Your task to perform on an android device: Go to Amazon Image 0: 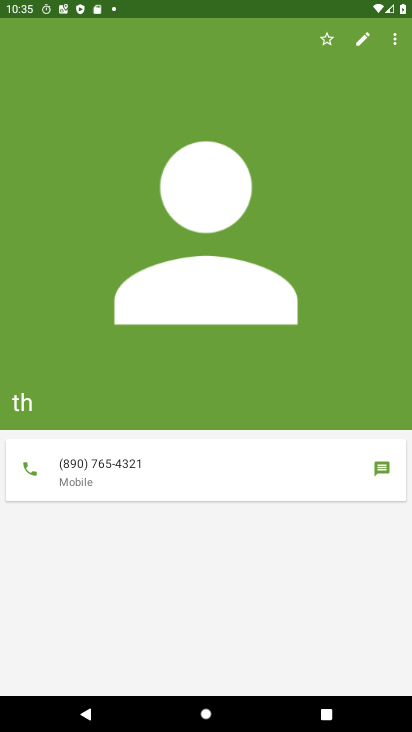
Step 0: press home button
Your task to perform on an android device: Go to Amazon Image 1: 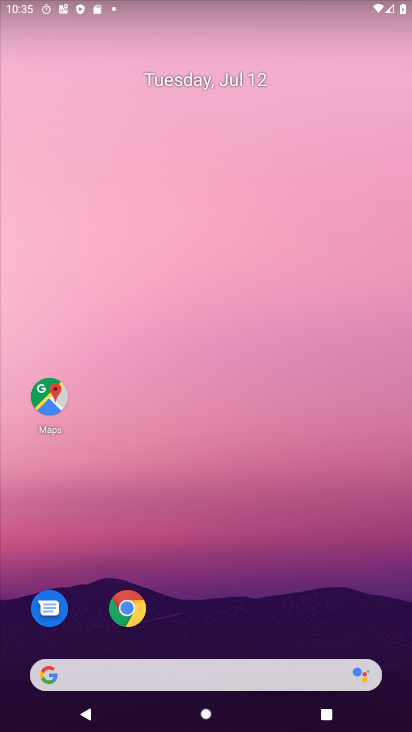
Step 1: click (123, 617)
Your task to perform on an android device: Go to Amazon Image 2: 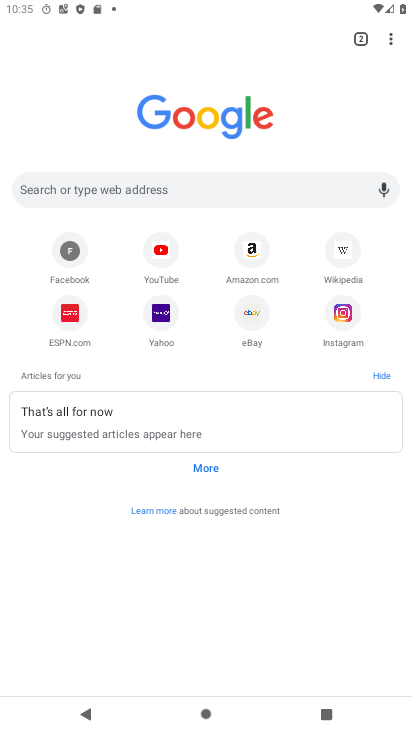
Step 2: click (251, 257)
Your task to perform on an android device: Go to Amazon Image 3: 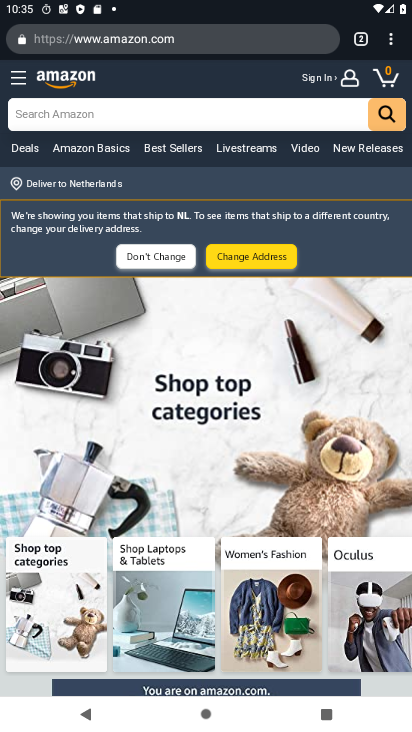
Step 3: task complete